Your task to perform on an android device: Go to wifi settings Image 0: 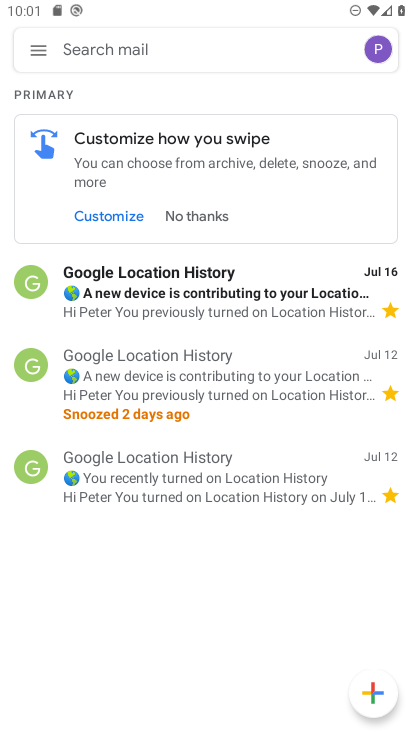
Step 0: press home button
Your task to perform on an android device: Go to wifi settings Image 1: 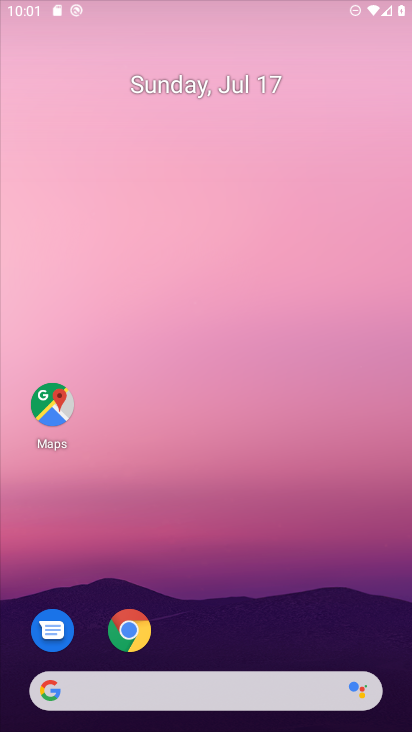
Step 1: drag from (168, 707) to (171, 197)
Your task to perform on an android device: Go to wifi settings Image 2: 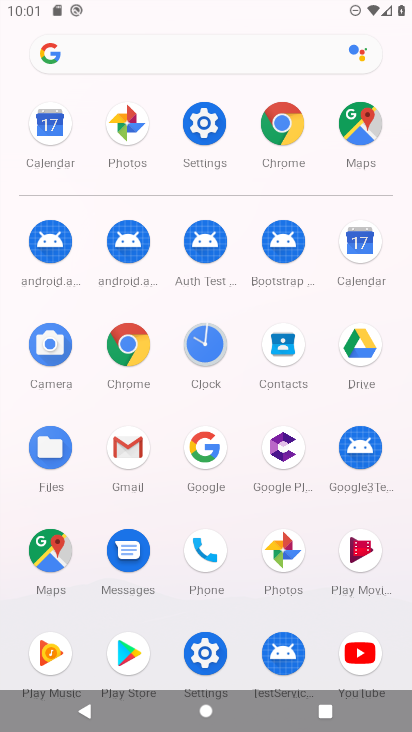
Step 2: click (194, 115)
Your task to perform on an android device: Go to wifi settings Image 3: 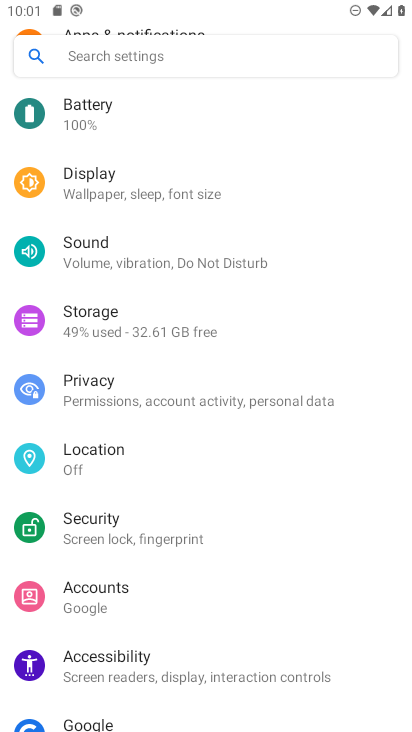
Step 3: drag from (169, 85) to (169, 576)
Your task to perform on an android device: Go to wifi settings Image 4: 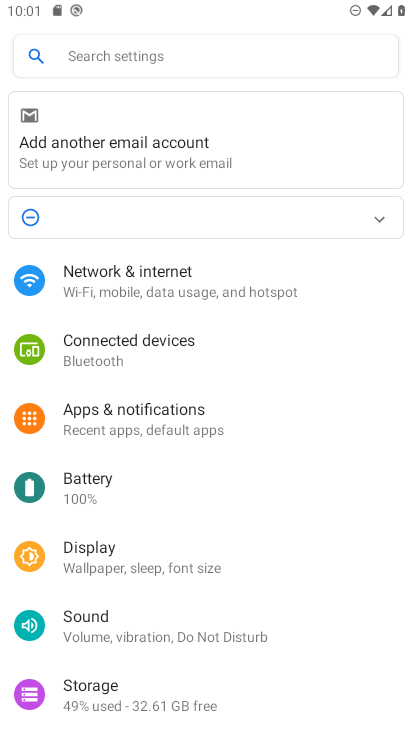
Step 4: click (139, 280)
Your task to perform on an android device: Go to wifi settings Image 5: 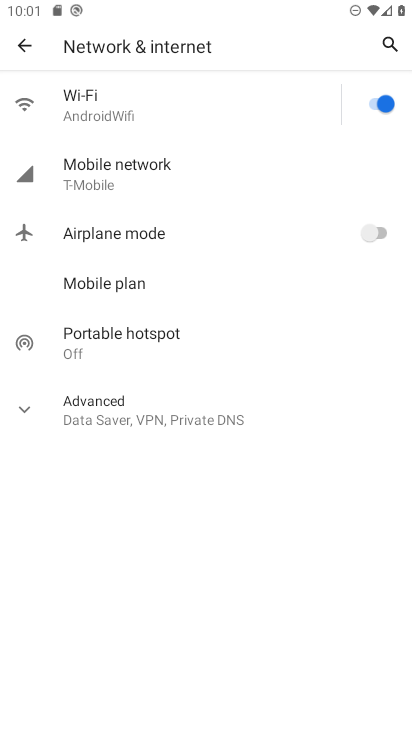
Step 5: click (90, 98)
Your task to perform on an android device: Go to wifi settings Image 6: 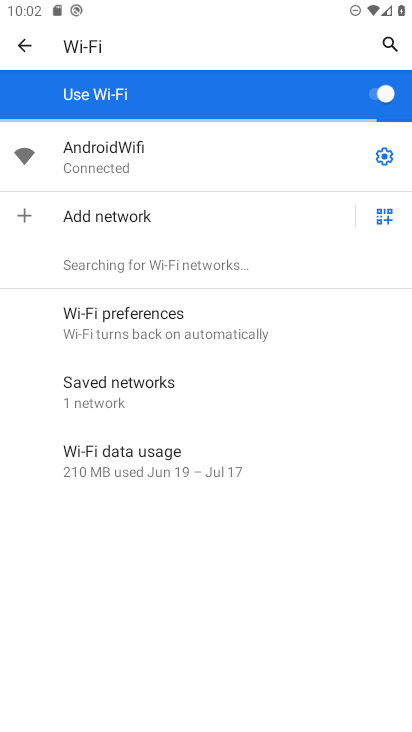
Step 6: task complete